Your task to perform on an android device: Go to Amazon Image 0: 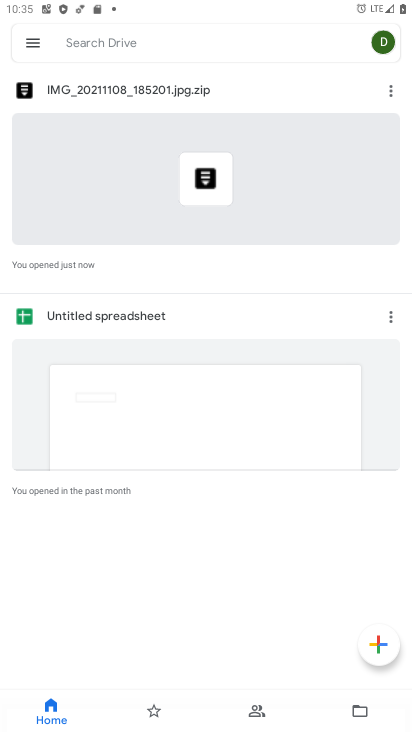
Step 0: press home button
Your task to perform on an android device: Go to Amazon Image 1: 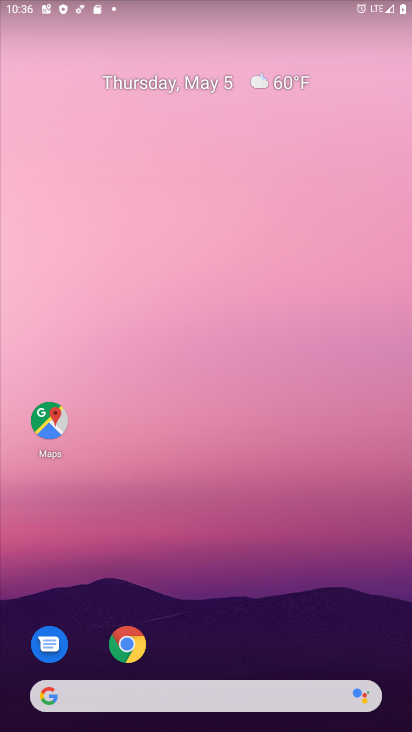
Step 1: click (141, 651)
Your task to perform on an android device: Go to Amazon Image 2: 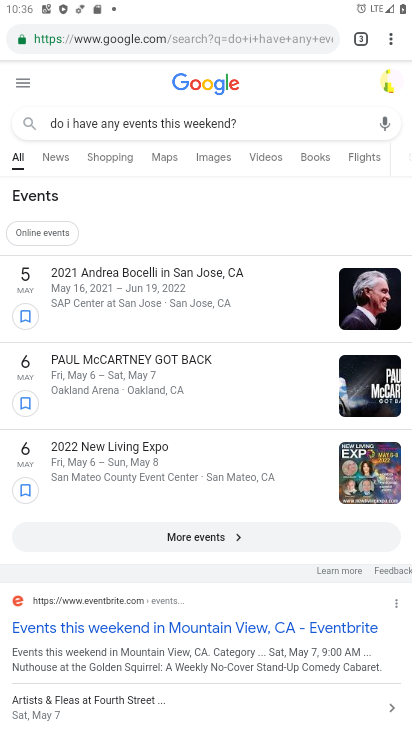
Step 2: click (109, 41)
Your task to perform on an android device: Go to Amazon Image 3: 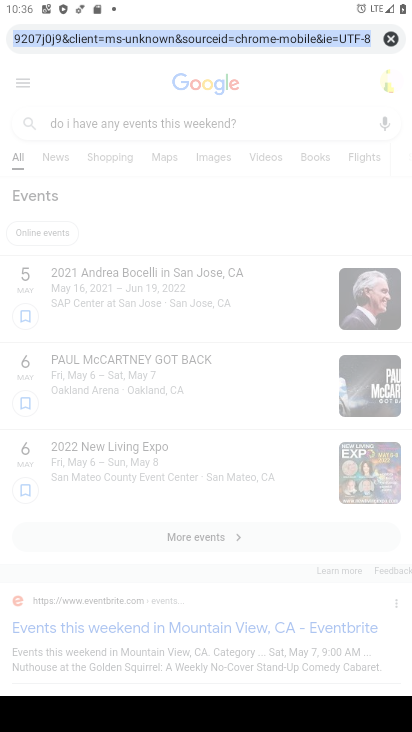
Step 3: type "Amazon"
Your task to perform on an android device: Go to Amazon Image 4: 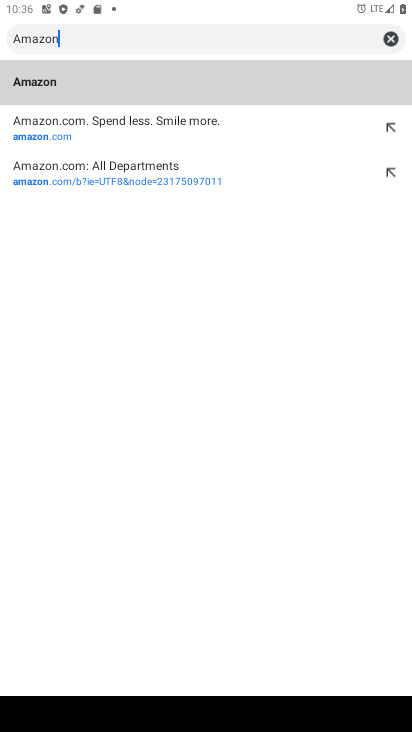
Step 4: click (50, 92)
Your task to perform on an android device: Go to Amazon Image 5: 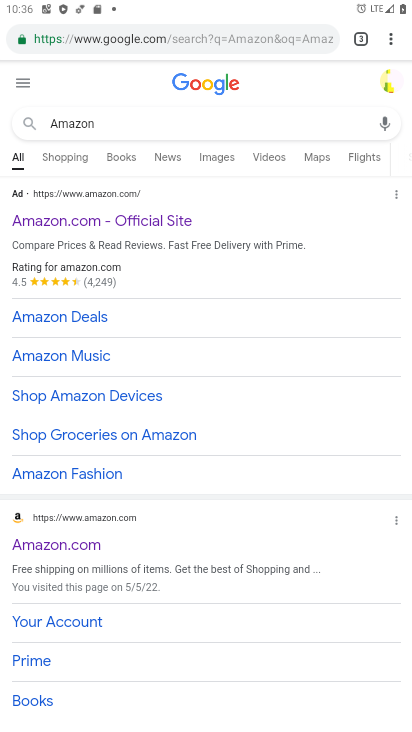
Step 5: click (108, 226)
Your task to perform on an android device: Go to Amazon Image 6: 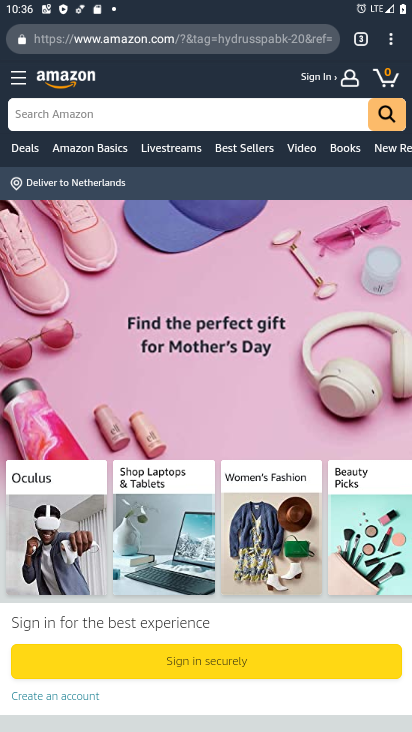
Step 6: task complete